Your task to perform on an android device: Go to Wikipedia Image 0: 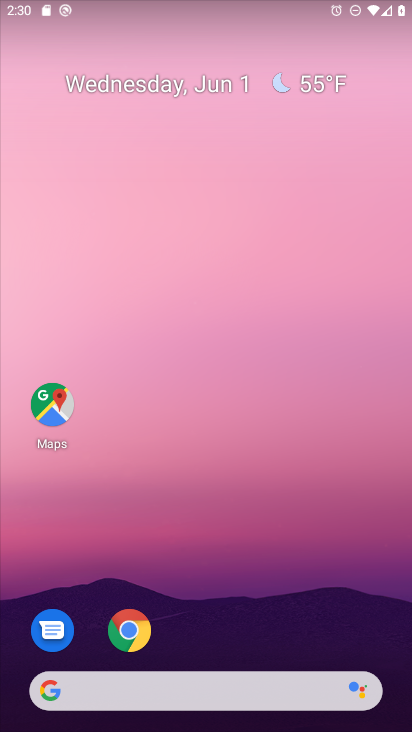
Step 0: drag from (227, 672) to (234, 56)
Your task to perform on an android device: Go to Wikipedia Image 1: 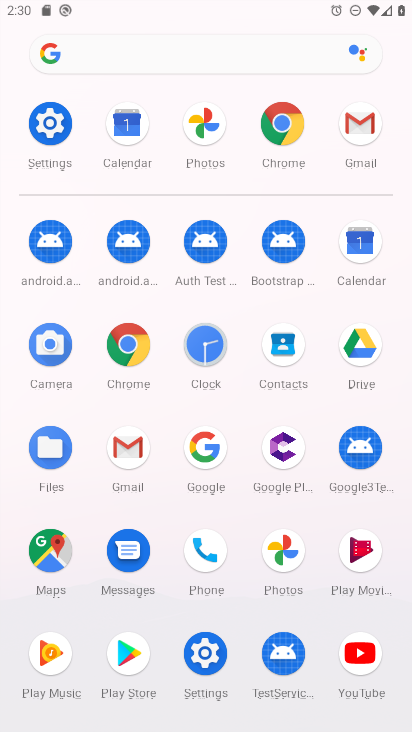
Step 1: click (123, 346)
Your task to perform on an android device: Go to Wikipedia Image 2: 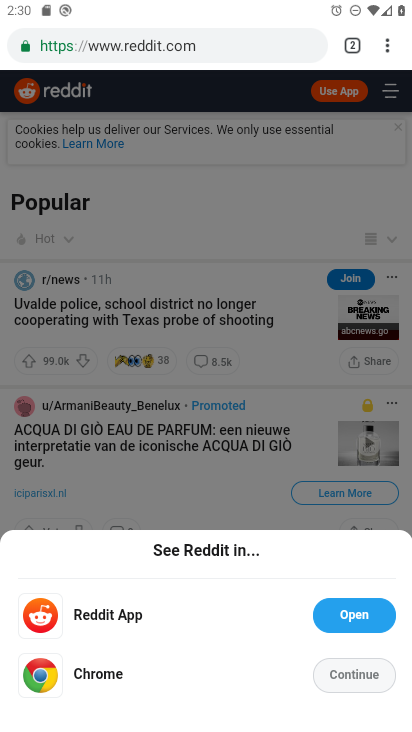
Step 2: drag from (393, 46) to (249, 94)
Your task to perform on an android device: Go to Wikipedia Image 3: 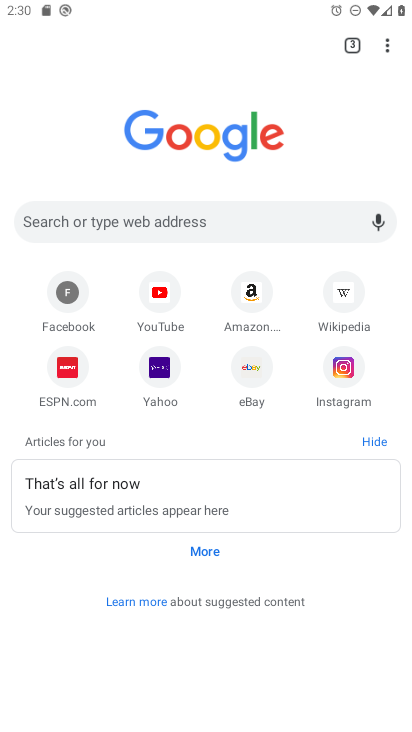
Step 3: click (346, 290)
Your task to perform on an android device: Go to Wikipedia Image 4: 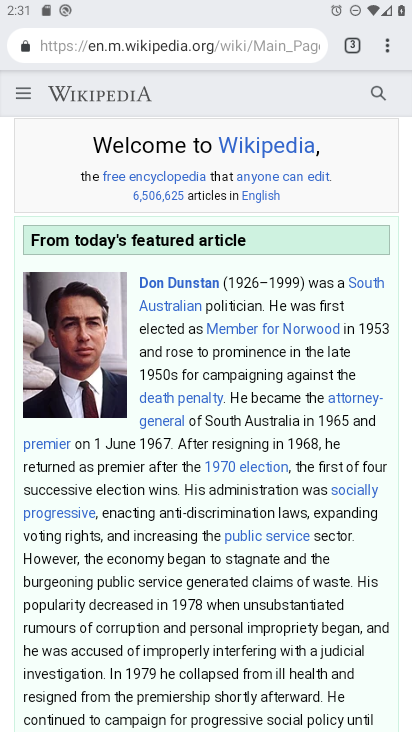
Step 4: task complete